Your task to perform on an android device: toggle pop-ups in chrome Image 0: 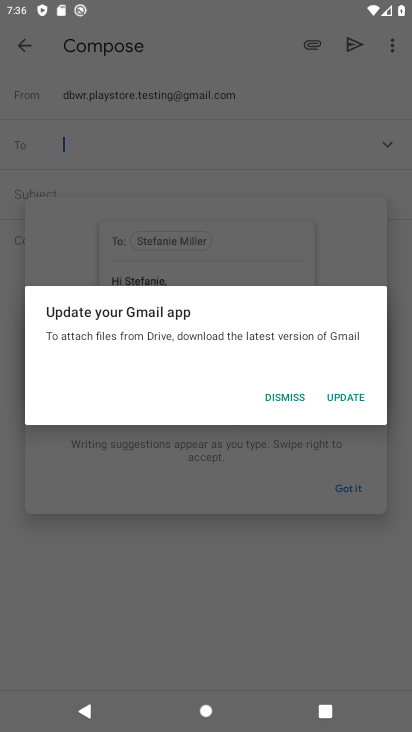
Step 0: press home button
Your task to perform on an android device: toggle pop-ups in chrome Image 1: 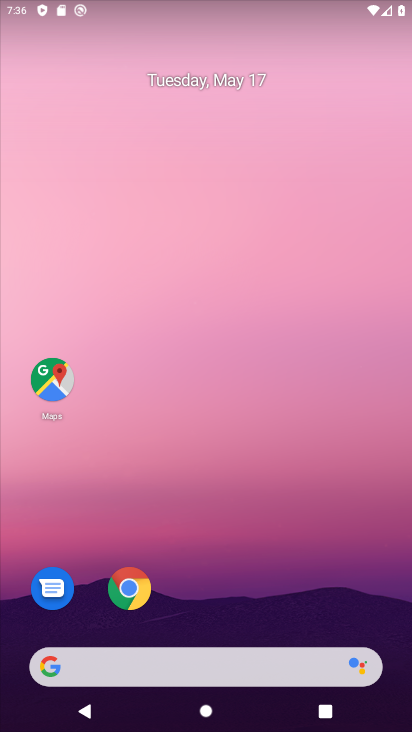
Step 1: press home button
Your task to perform on an android device: toggle pop-ups in chrome Image 2: 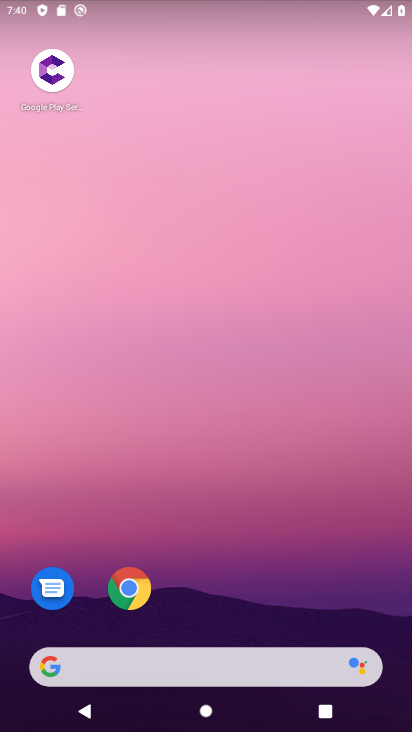
Step 2: click (126, 576)
Your task to perform on an android device: toggle pop-ups in chrome Image 3: 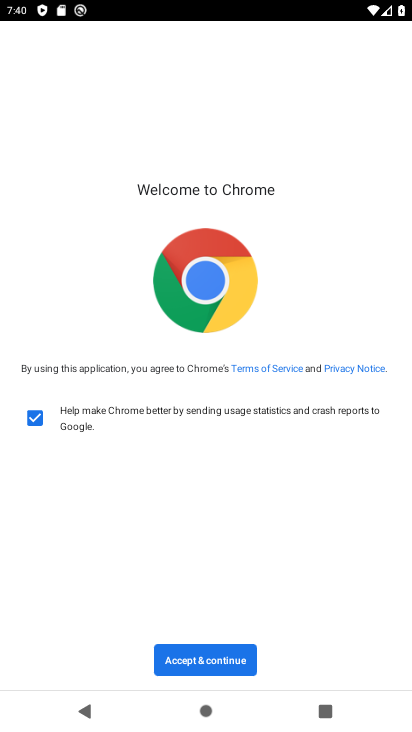
Step 3: click (134, 588)
Your task to perform on an android device: toggle pop-ups in chrome Image 4: 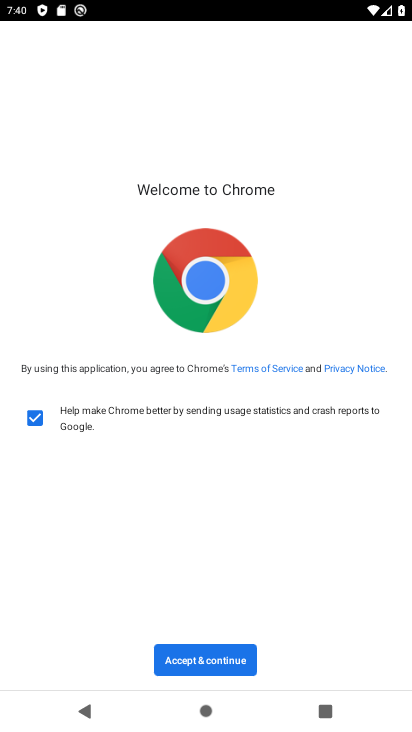
Step 4: click (178, 652)
Your task to perform on an android device: toggle pop-ups in chrome Image 5: 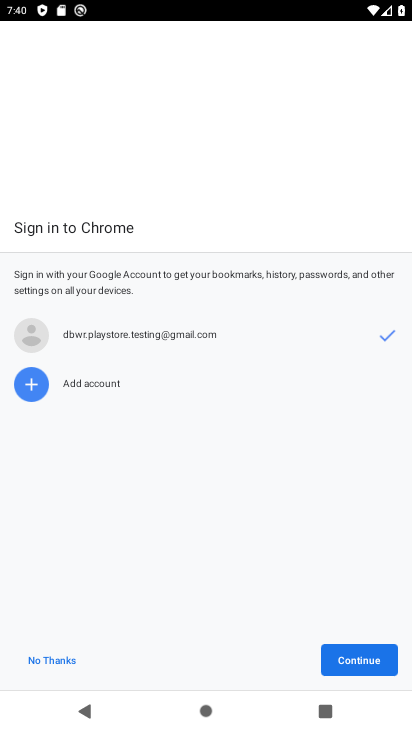
Step 5: click (345, 665)
Your task to perform on an android device: toggle pop-ups in chrome Image 6: 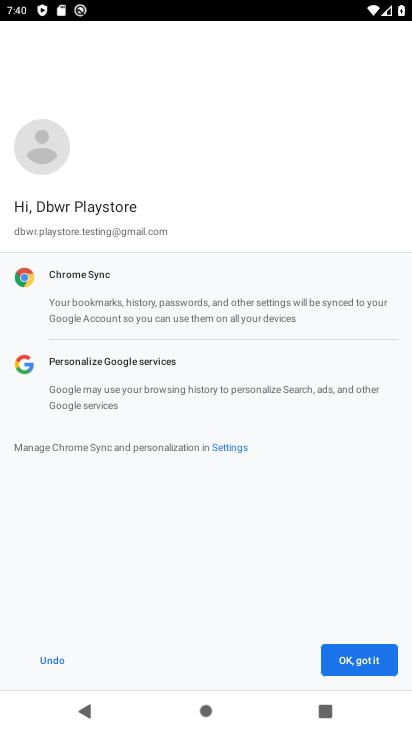
Step 6: click (347, 664)
Your task to perform on an android device: toggle pop-ups in chrome Image 7: 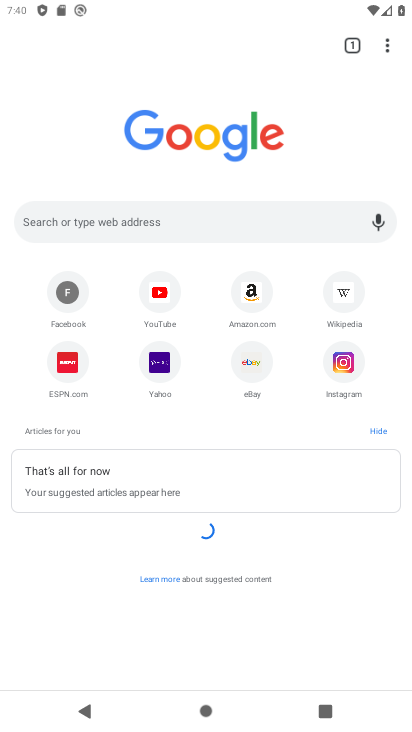
Step 7: click (388, 37)
Your task to perform on an android device: toggle pop-ups in chrome Image 8: 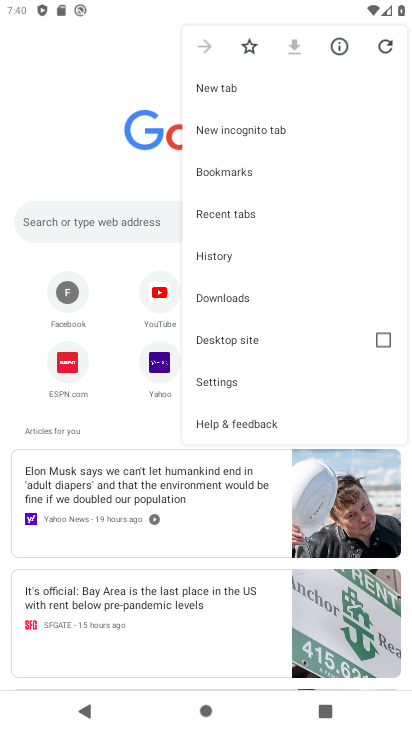
Step 8: click (214, 380)
Your task to perform on an android device: toggle pop-ups in chrome Image 9: 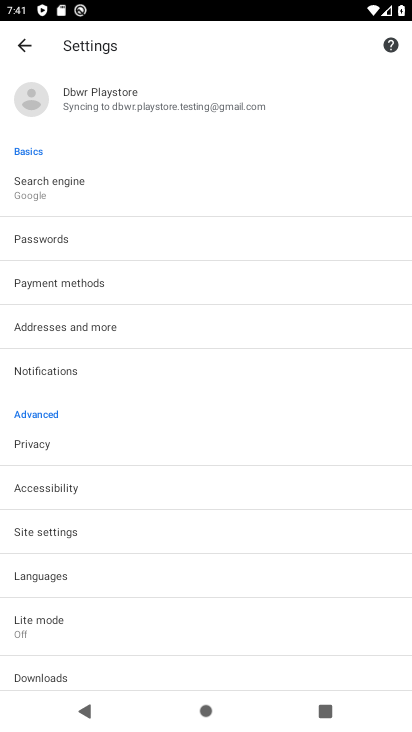
Step 9: click (49, 536)
Your task to perform on an android device: toggle pop-ups in chrome Image 10: 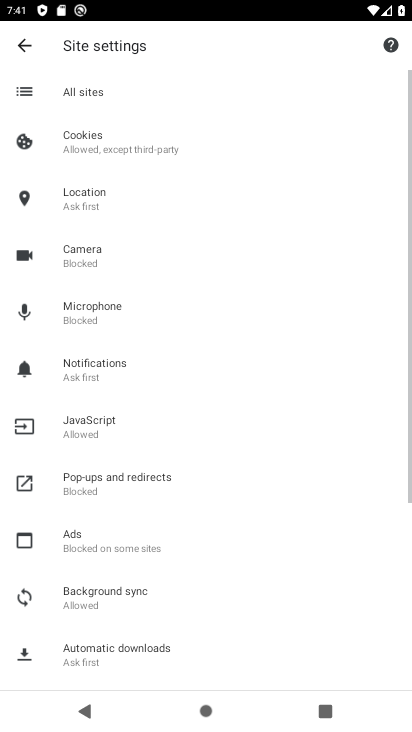
Step 10: click (95, 480)
Your task to perform on an android device: toggle pop-ups in chrome Image 11: 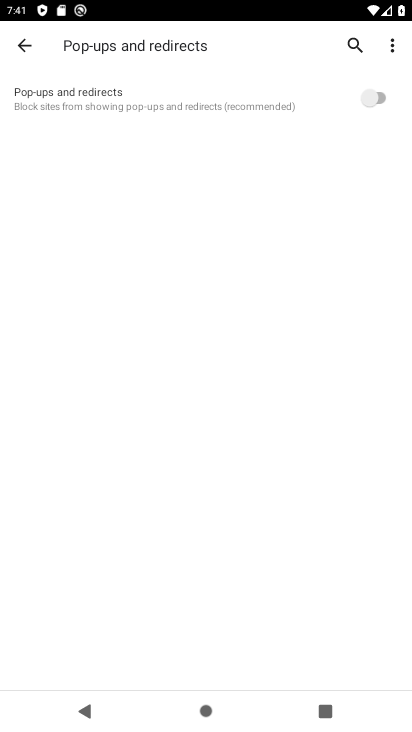
Step 11: click (374, 97)
Your task to perform on an android device: toggle pop-ups in chrome Image 12: 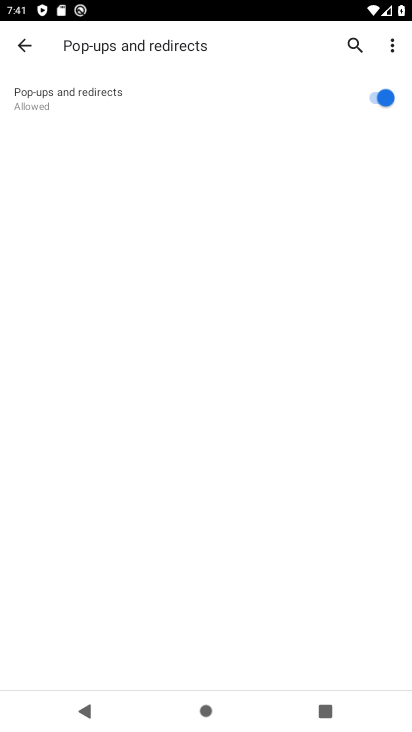
Step 12: task complete